Your task to perform on an android device: turn off location Image 0: 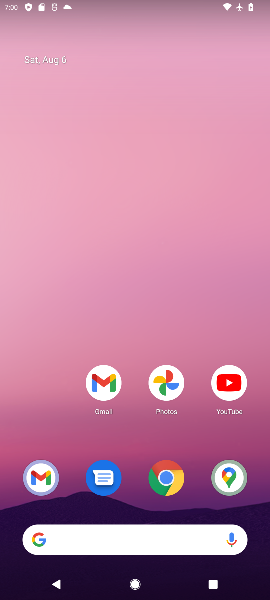
Step 0: press home button
Your task to perform on an android device: turn off location Image 1: 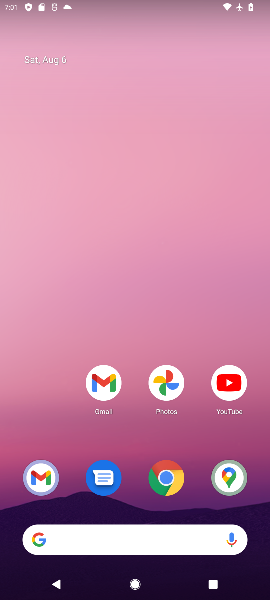
Step 1: drag from (129, 331) to (121, 46)
Your task to perform on an android device: turn off location Image 2: 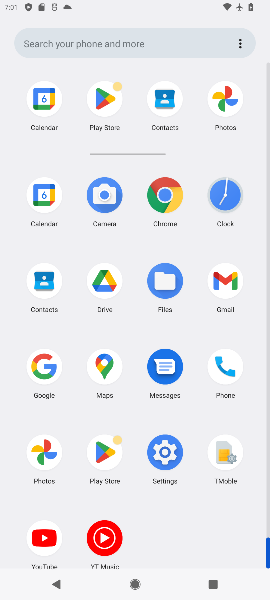
Step 2: click (161, 450)
Your task to perform on an android device: turn off location Image 3: 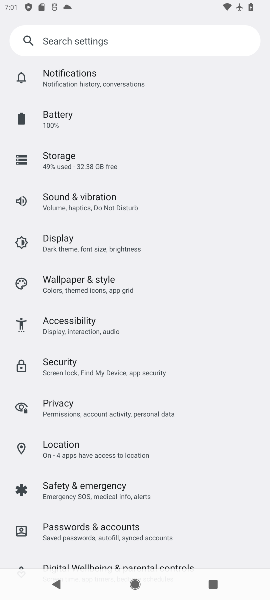
Step 3: click (81, 439)
Your task to perform on an android device: turn off location Image 4: 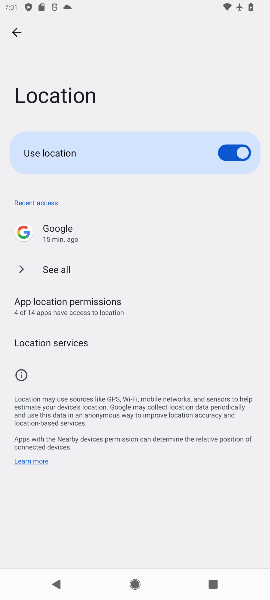
Step 4: click (237, 161)
Your task to perform on an android device: turn off location Image 5: 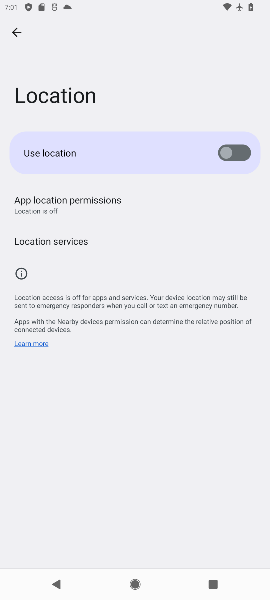
Step 5: task complete